Your task to perform on an android device: turn off location Image 0: 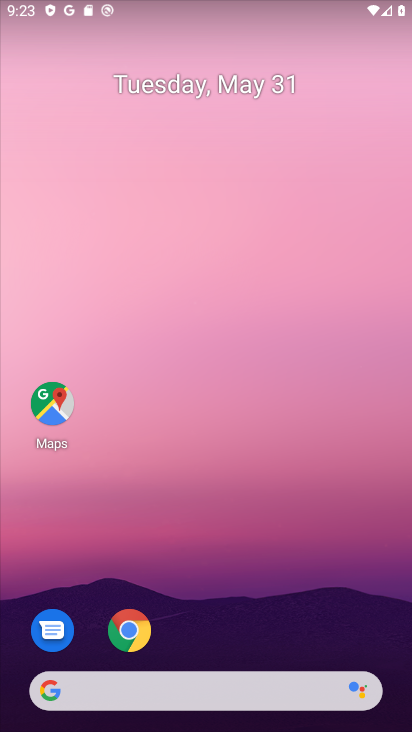
Step 0: drag from (129, 728) to (183, 58)
Your task to perform on an android device: turn off location Image 1: 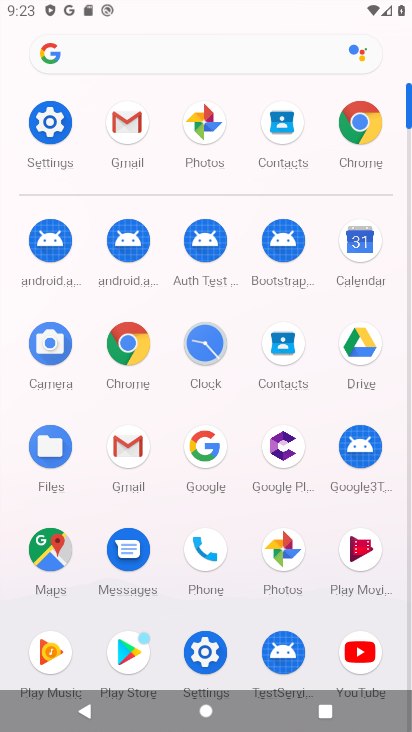
Step 1: click (52, 137)
Your task to perform on an android device: turn off location Image 2: 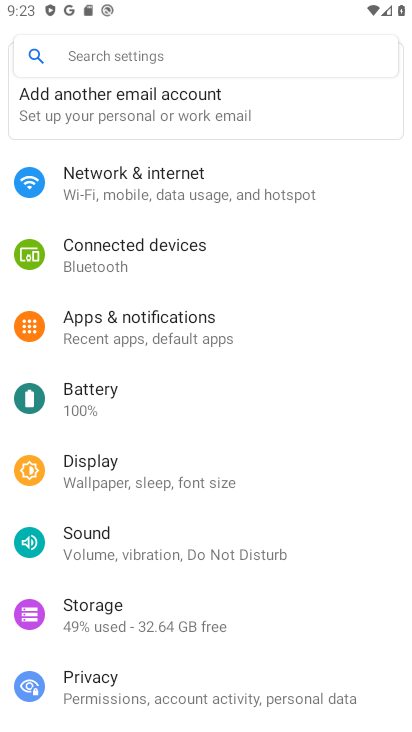
Step 2: drag from (146, 676) to (155, 224)
Your task to perform on an android device: turn off location Image 3: 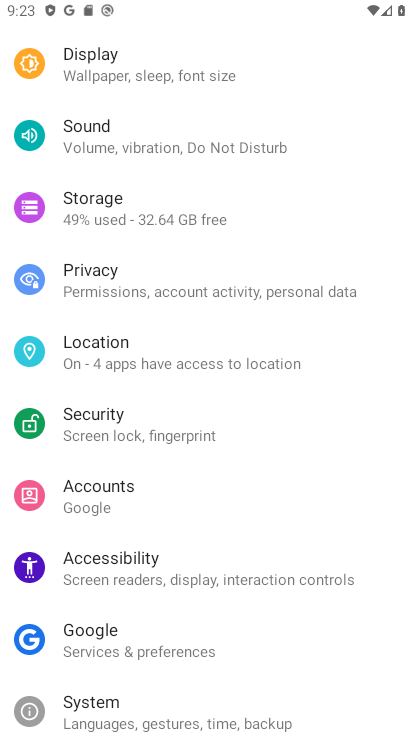
Step 3: click (68, 360)
Your task to perform on an android device: turn off location Image 4: 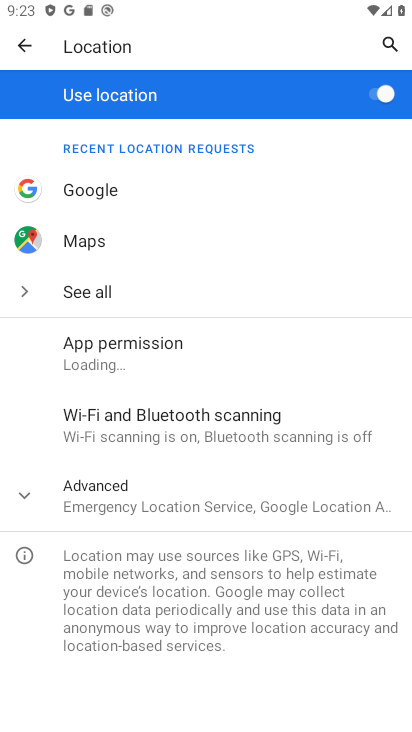
Step 4: click (384, 100)
Your task to perform on an android device: turn off location Image 5: 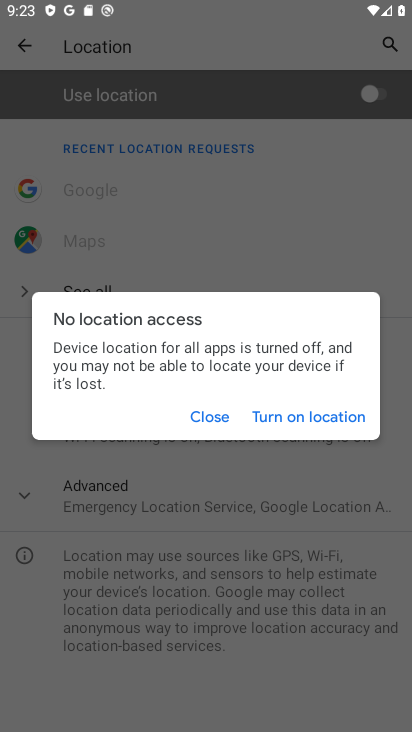
Step 5: click (189, 417)
Your task to perform on an android device: turn off location Image 6: 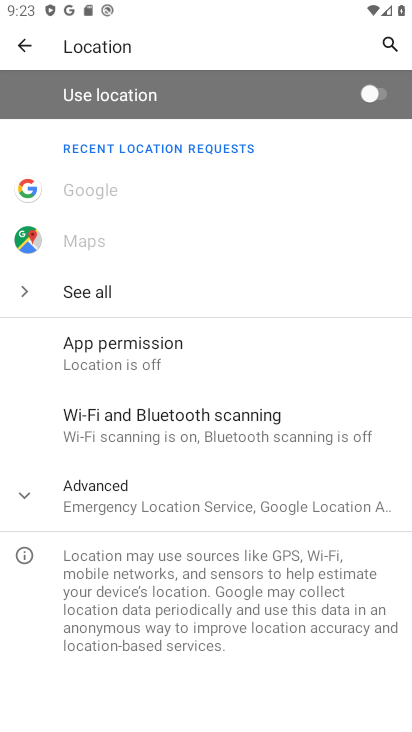
Step 6: task complete